Your task to perform on an android device: Check the news Image 0: 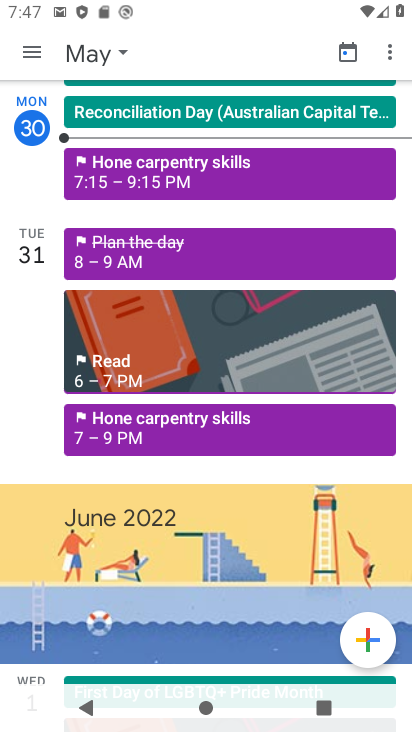
Step 0: press home button
Your task to perform on an android device: Check the news Image 1: 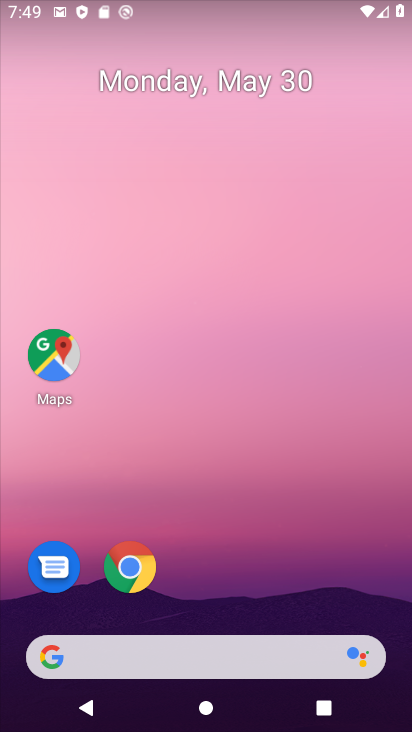
Step 1: click (249, 650)
Your task to perform on an android device: Check the news Image 2: 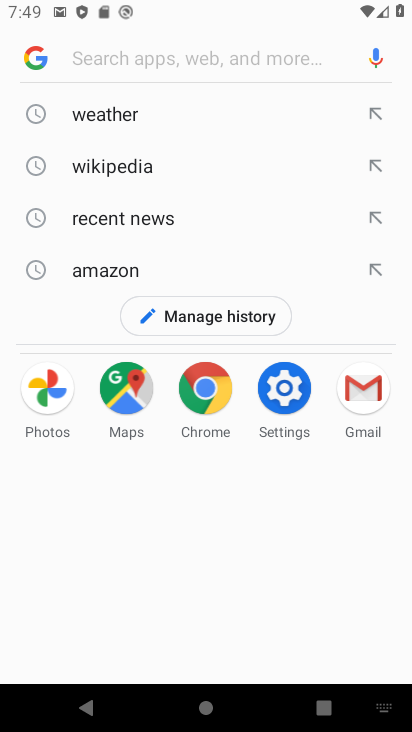
Step 2: click (123, 226)
Your task to perform on an android device: Check the news Image 3: 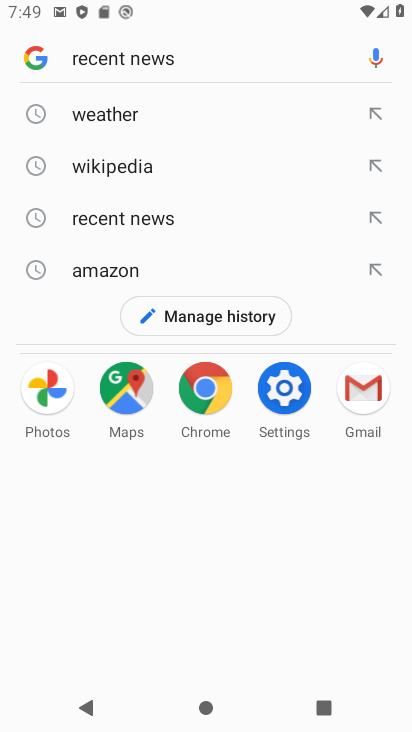
Step 3: task complete